Your task to perform on an android device: see sites visited before in the chrome app Image 0: 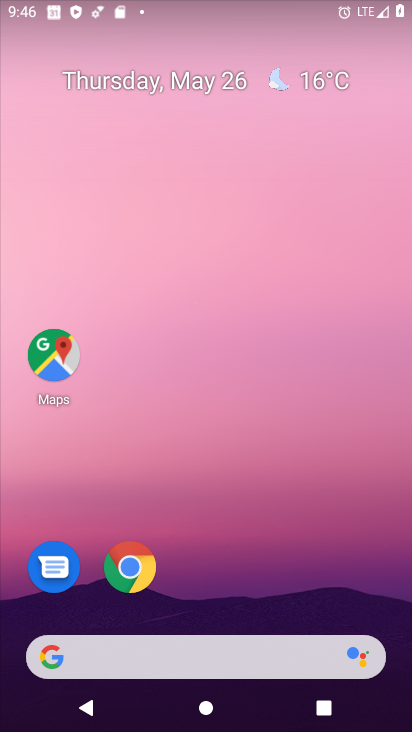
Step 0: click (139, 570)
Your task to perform on an android device: see sites visited before in the chrome app Image 1: 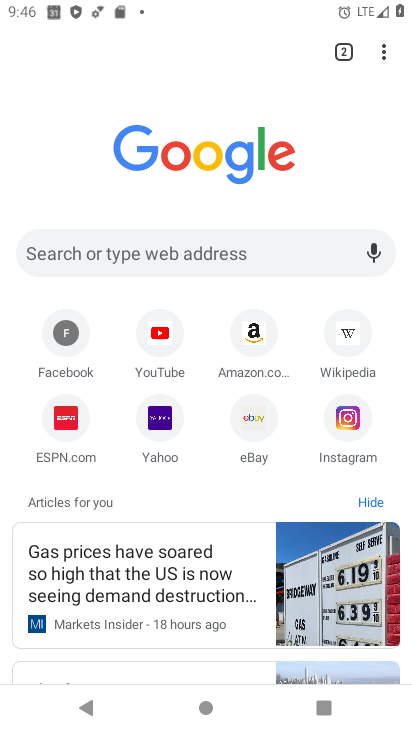
Step 1: click (382, 45)
Your task to perform on an android device: see sites visited before in the chrome app Image 2: 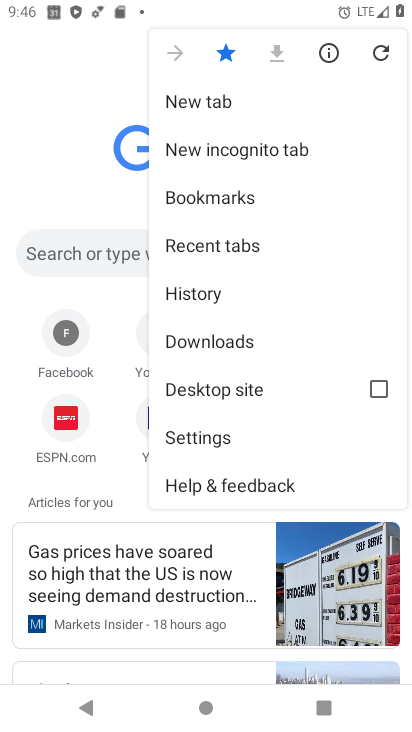
Step 2: click (184, 430)
Your task to perform on an android device: see sites visited before in the chrome app Image 3: 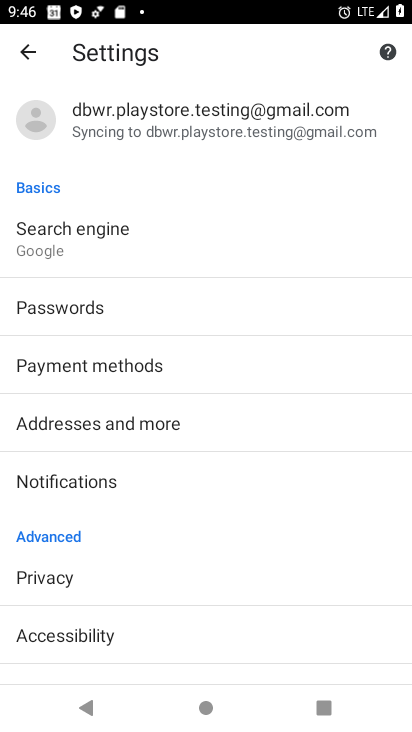
Step 3: click (20, 49)
Your task to perform on an android device: see sites visited before in the chrome app Image 4: 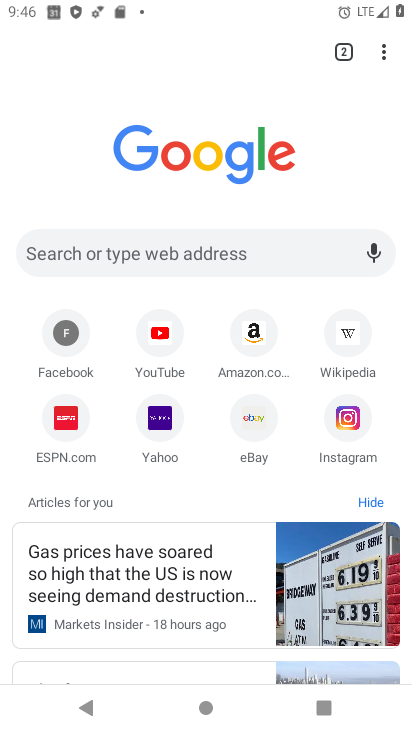
Step 4: click (384, 45)
Your task to perform on an android device: see sites visited before in the chrome app Image 5: 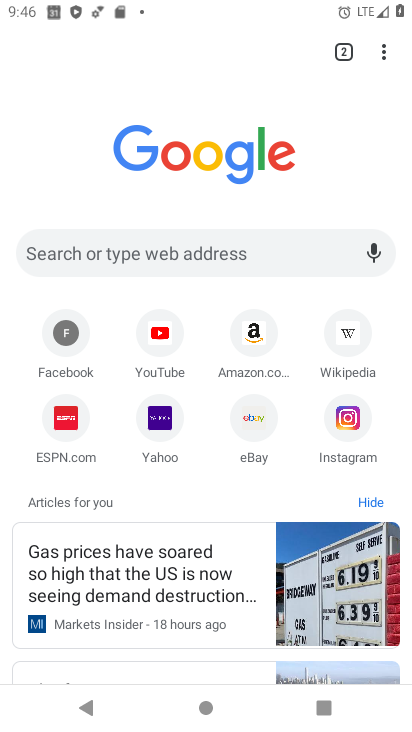
Step 5: click (382, 48)
Your task to perform on an android device: see sites visited before in the chrome app Image 6: 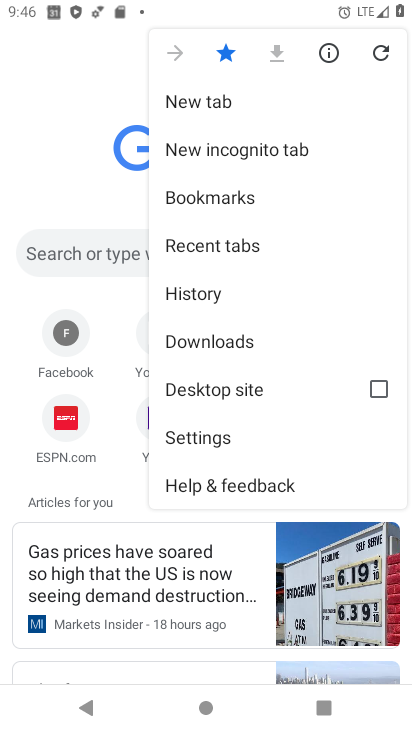
Step 6: click (186, 243)
Your task to perform on an android device: see sites visited before in the chrome app Image 7: 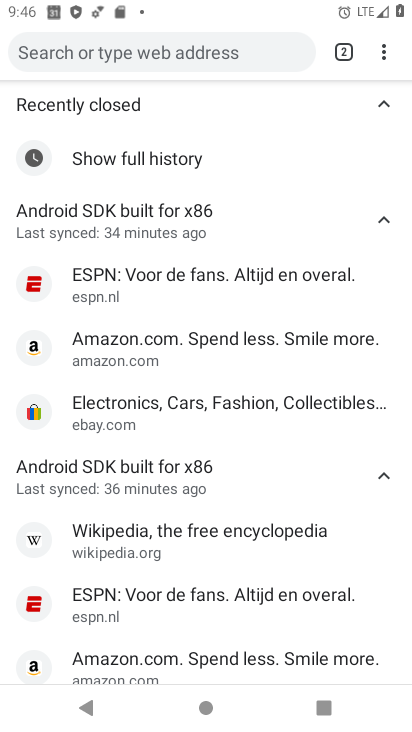
Step 7: task complete